Your task to perform on an android device: Open Amazon Image 0: 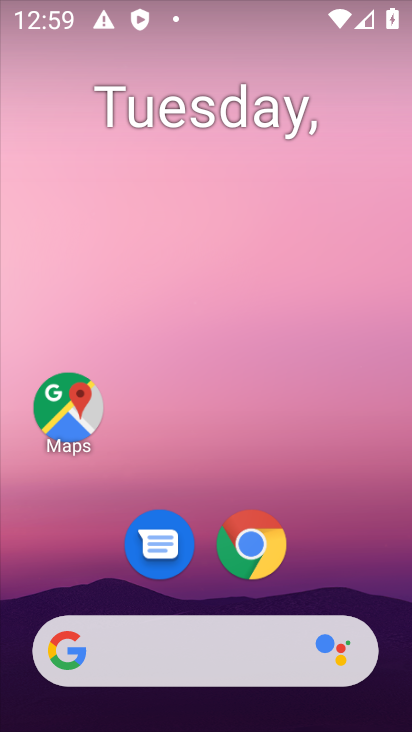
Step 0: drag from (364, 501) to (317, 31)
Your task to perform on an android device: Open Amazon Image 1: 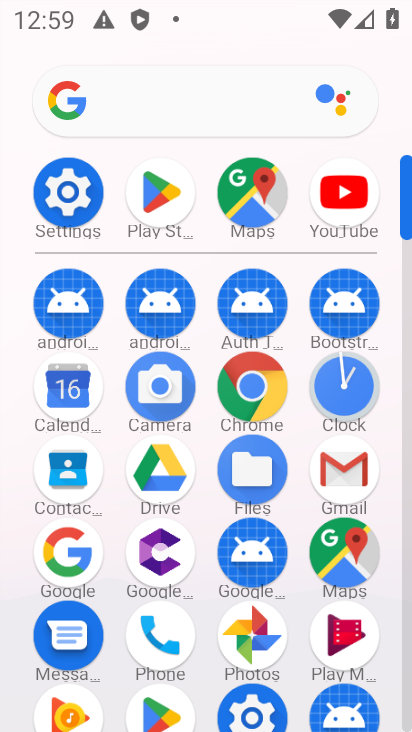
Step 1: click (257, 390)
Your task to perform on an android device: Open Amazon Image 2: 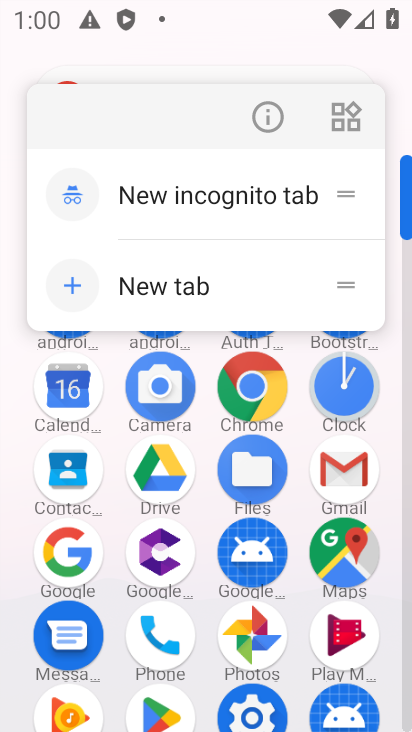
Step 2: click (256, 388)
Your task to perform on an android device: Open Amazon Image 3: 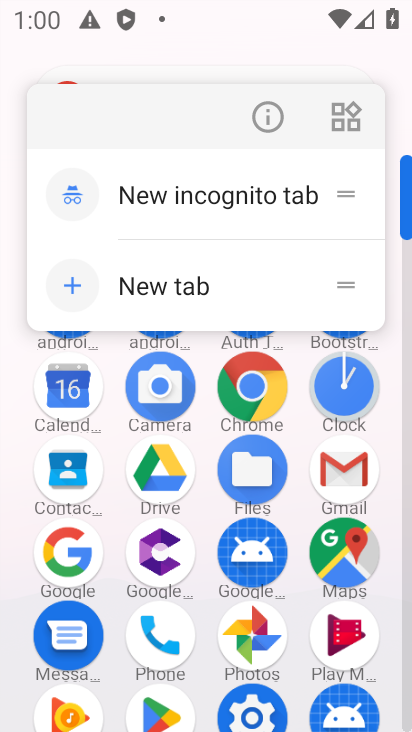
Step 3: click (248, 399)
Your task to perform on an android device: Open Amazon Image 4: 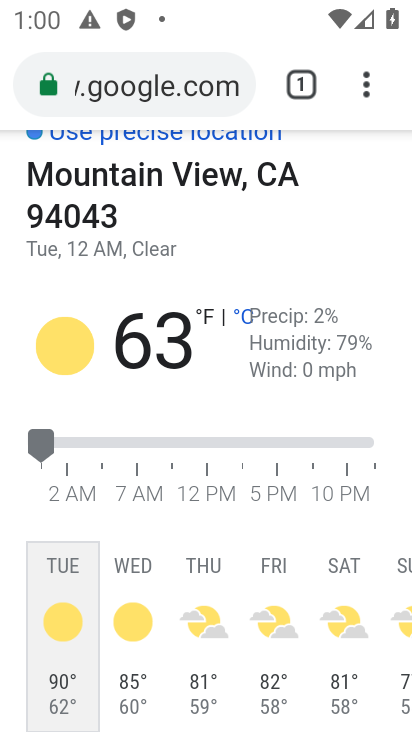
Step 4: click (198, 93)
Your task to perform on an android device: Open Amazon Image 5: 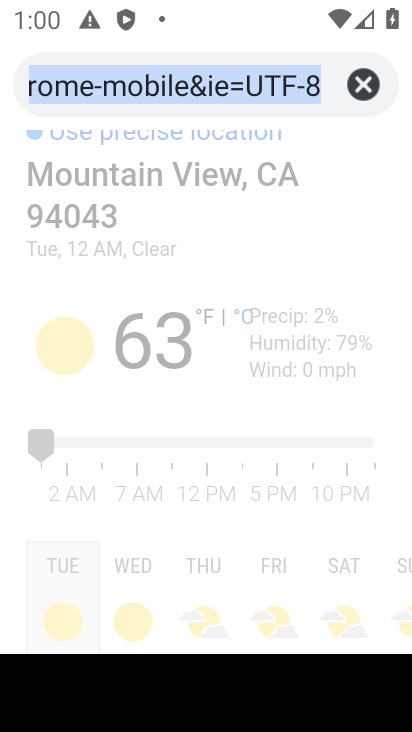
Step 5: type "amazon"
Your task to perform on an android device: Open Amazon Image 6: 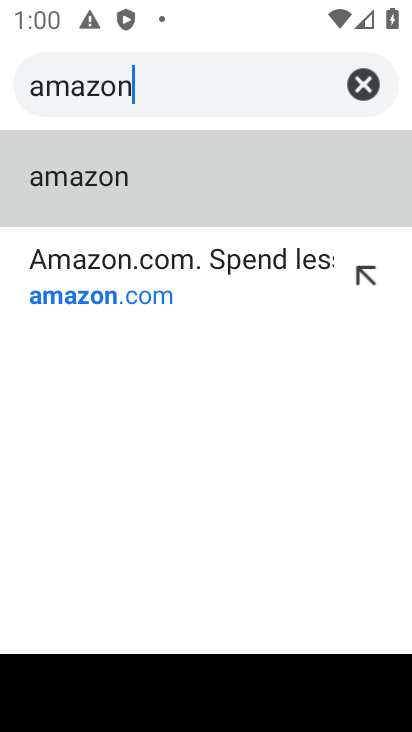
Step 6: click (122, 290)
Your task to perform on an android device: Open Amazon Image 7: 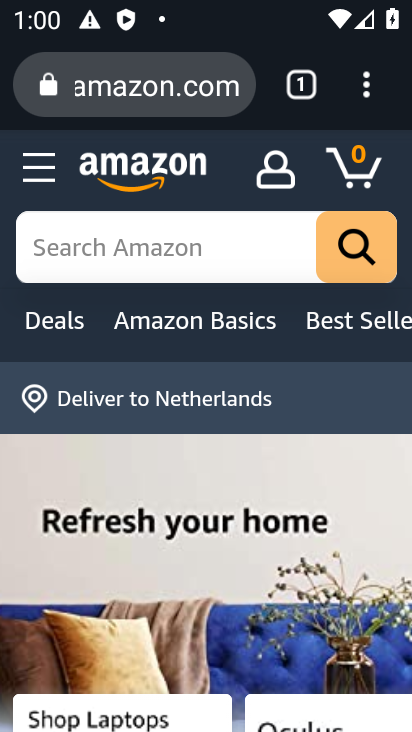
Step 7: task complete